Your task to perform on an android device: Open calendar and show me the fourth week of next month Image 0: 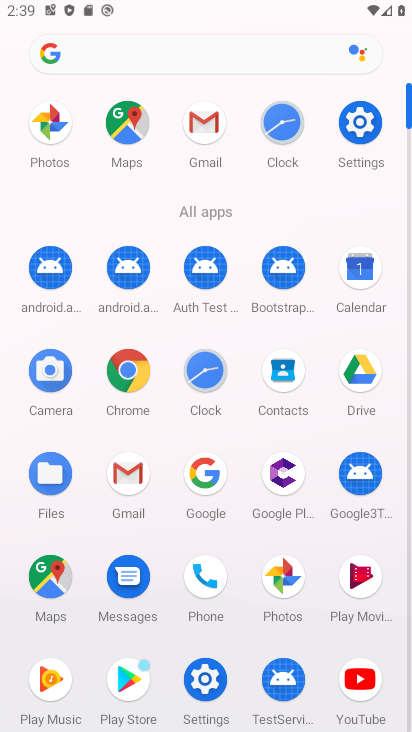
Step 0: click (359, 268)
Your task to perform on an android device: Open calendar and show me the fourth week of next month Image 1: 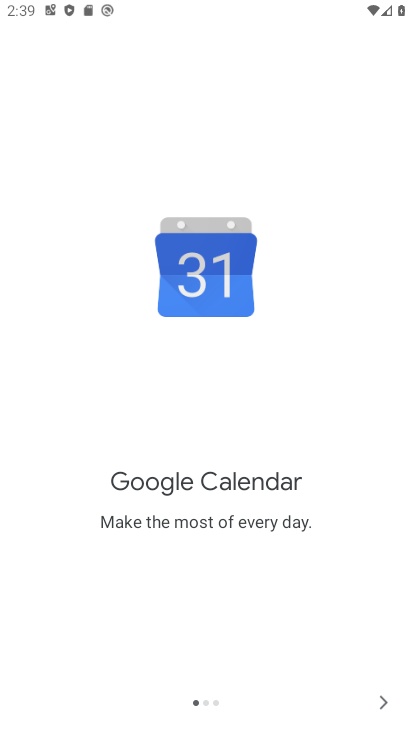
Step 1: click (375, 693)
Your task to perform on an android device: Open calendar and show me the fourth week of next month Image 2: 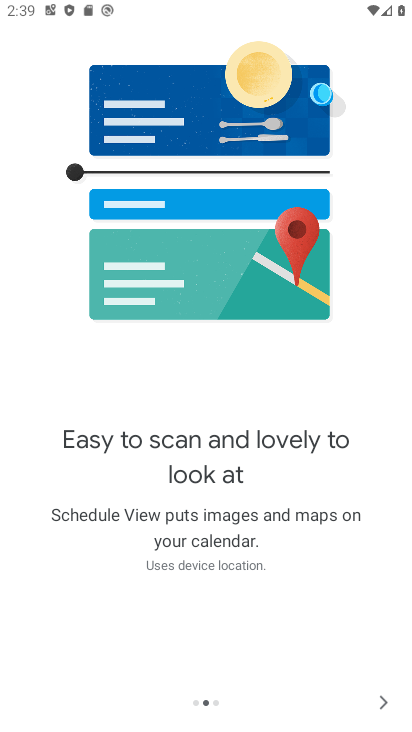
Step 2: click (380, 700)
Your task to perform on an android device: Open calendar and show me the fourth week of next month Image 3: 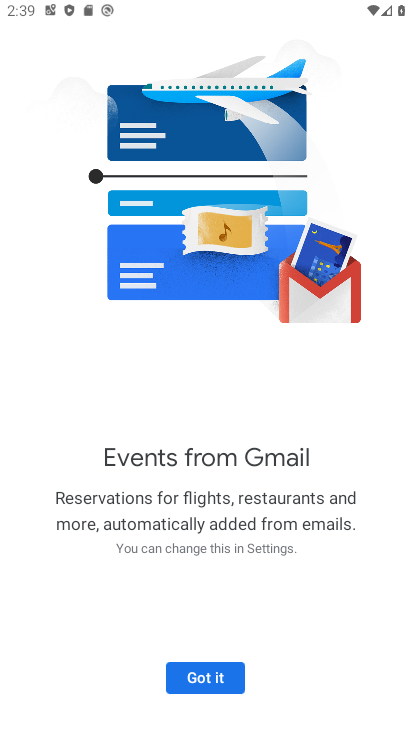
Step 3: click (224, 674)
Your task to perform on an android device: Open calendar and show me the fourth week of next month Image 4: 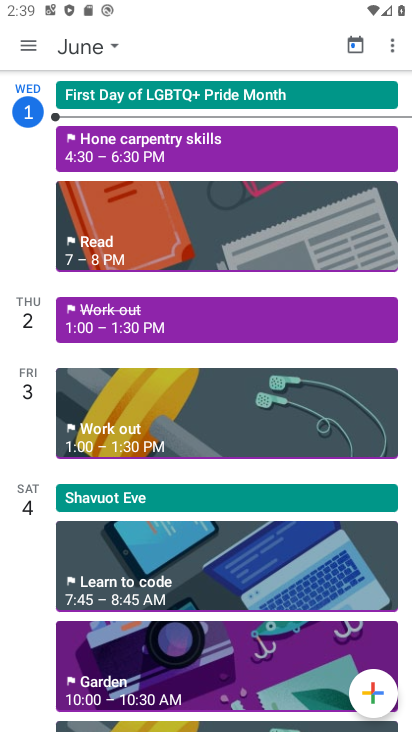
Step 4: click (115, 45)
Your task to perform on an android device: Open calendar and show me the fourth week of next month Image 5: 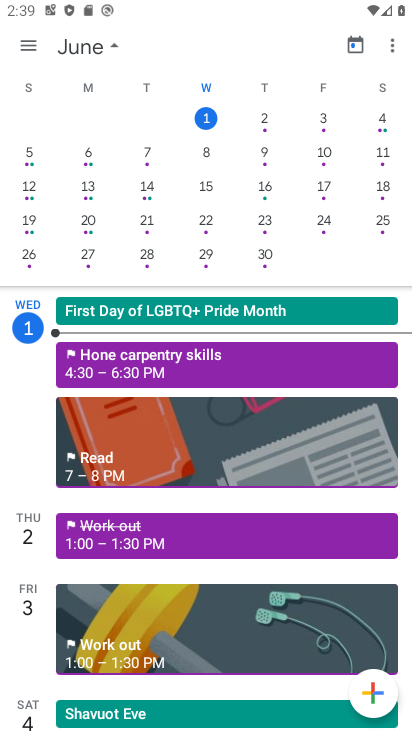
Step 5: drag from (83, 188) to (7, 188)
Your task to perform on an android device: Open calendar and show me the fourth week of next month Image 6: 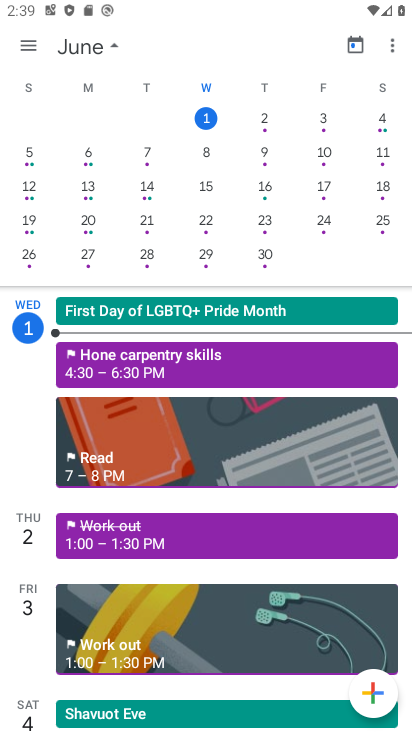
Step 6: click (204, 272)
Your task to perform on an android device: Open calendar and show me the fourth week of next month Image 7: 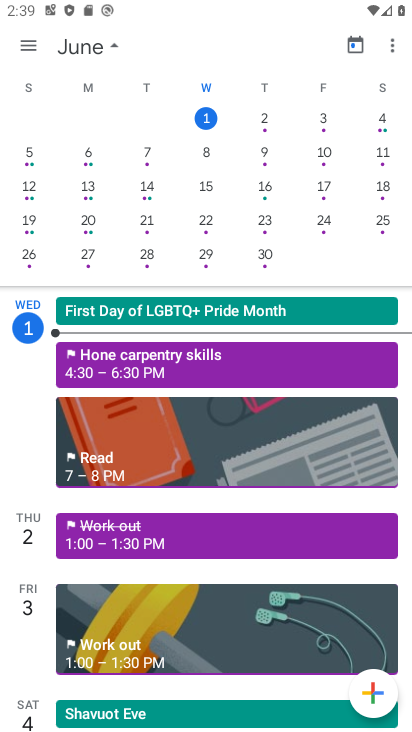
Step 7: drag from (110, 192) to (7, 175)
Your task to perform on an android device: Open calendar and show me the fourth week of next month Image 8: 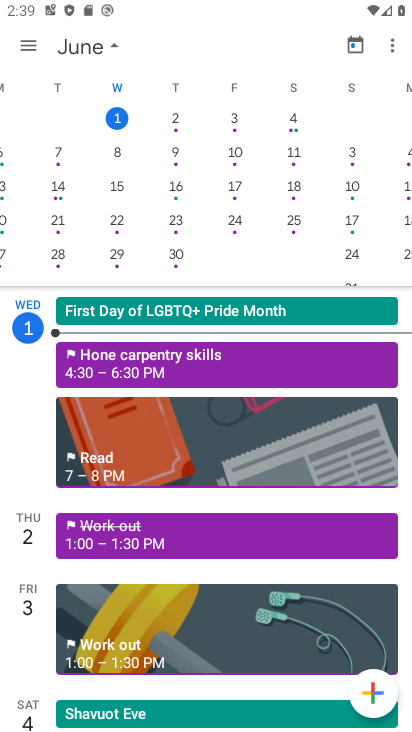
Step 8: drag from (244, 187) to (117, 196)
Your task to perform on an android device: Open calendar and show me the fourth week of next month Image 9: 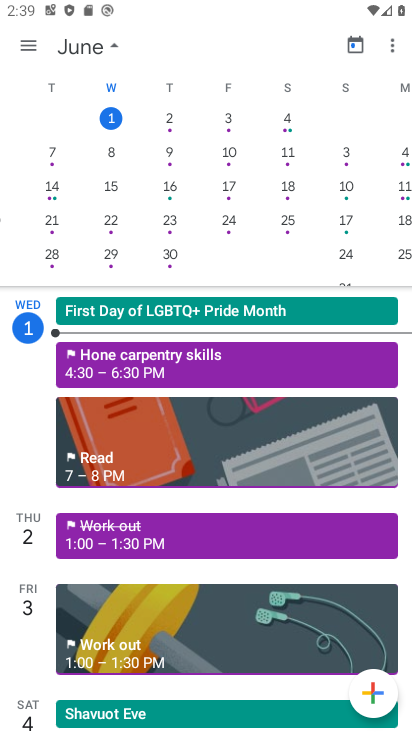
Step 9: drag from (268, 178) to (24, 183)
Your task to perform on an android device: Open calendar and show me the fourth week of next month Image 10: 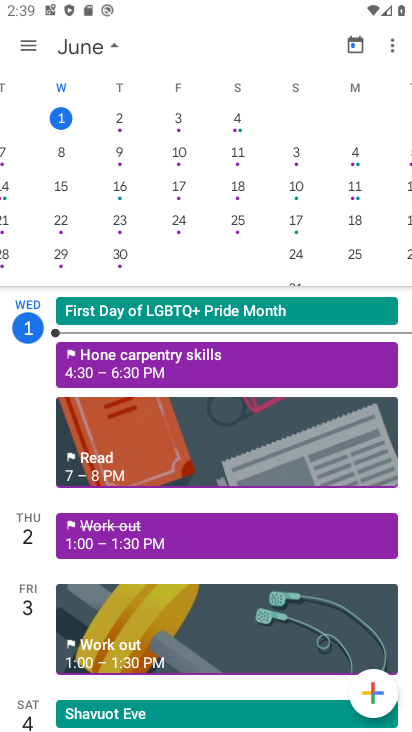
Step 10: drag from (290, 201) to (8, 182)
Your task to perform on an android device: Open calendar and show me the fourth week of next month Image 11: 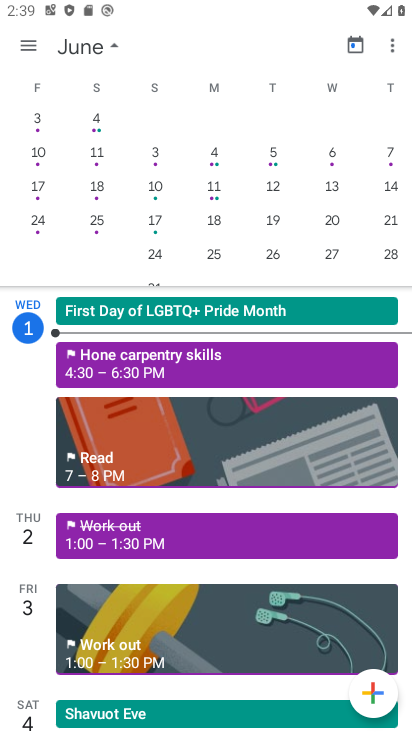
Step 11: drag from (191, 161) to (18, 185)
Your task to perform on an android device: Open calendar and show me the fourth week of next month Image 12: 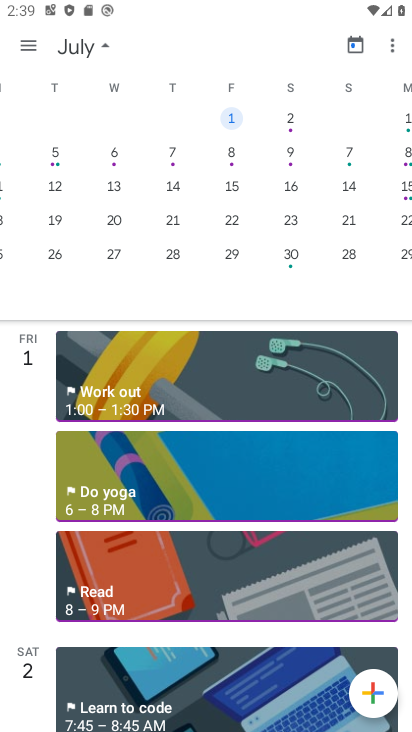
Step 12: drag from (144, 199) to (2, 193)
Your task to perform on an android device: Open calendar and show me the fourth week of next month Image 13: 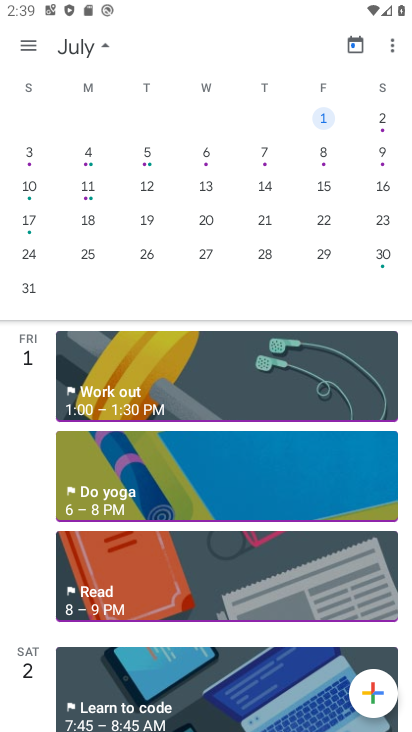
Step 13: drag from (305, 149) to (0, 159)
Your task to perform on an android device: Open calendar and show me the fourth week of next month Image 14: 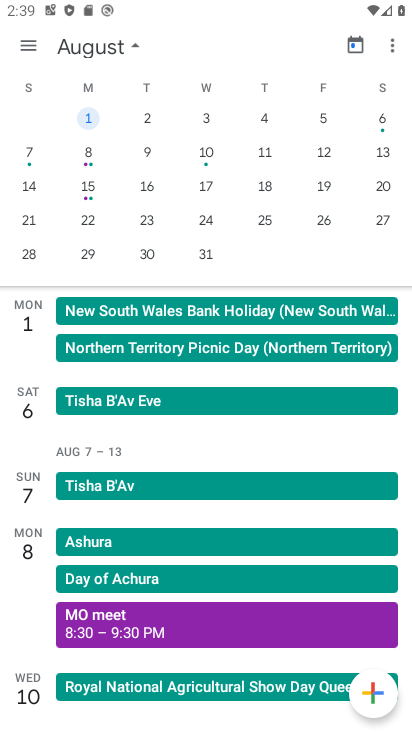
Step 14: click (283, 212)
Your task to perform on an android device: Open calendar and show me the fourth week of next month Image 15: 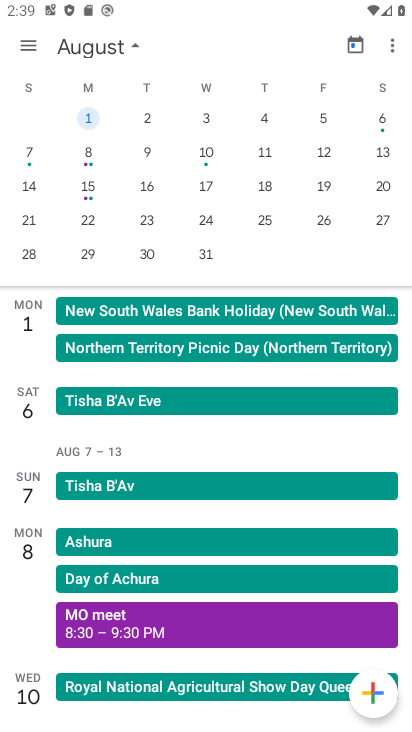
Step 15: drag from (84, 173) to (266, 210)
Your task to perform on an android device: Open calendar and show me the fourth week of next month Image 16: 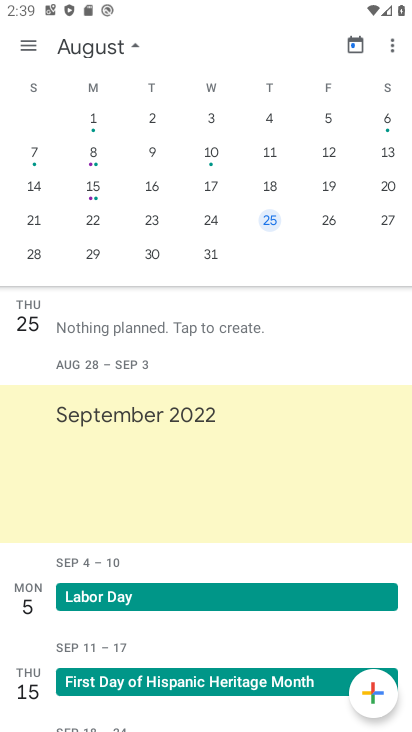
Step 16: drag from (71, 196) to (346, 229)
Your task to perform on an android device: Open calendar and show me the fourth week of next month Image 17: 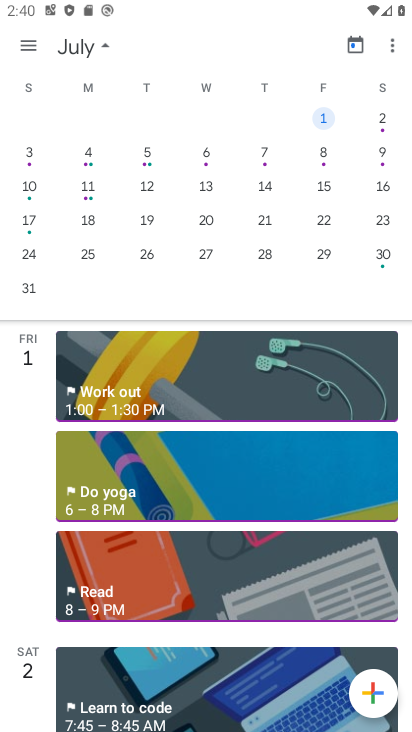
Step 17: click (127, 249)
Your task to perform on an android device: Open calendar and show me the fourth week of next month Image 18: 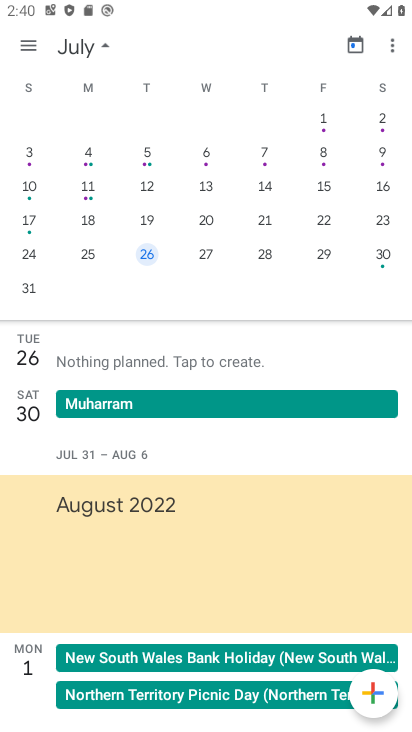
Step 18: click (321, 181)
Your task to perform on an android device: Open calendar and show me the fourth week of next month Image 19: 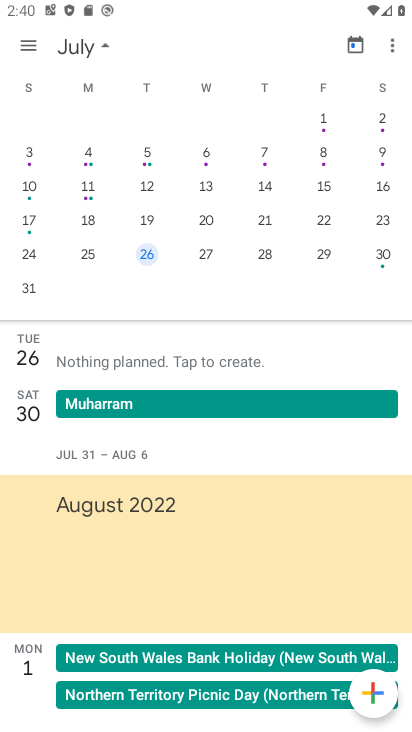
Step 19: click (317, 186)
Your task to perform on an android device: Open calendar and show me the fourth week of next month Image 20: 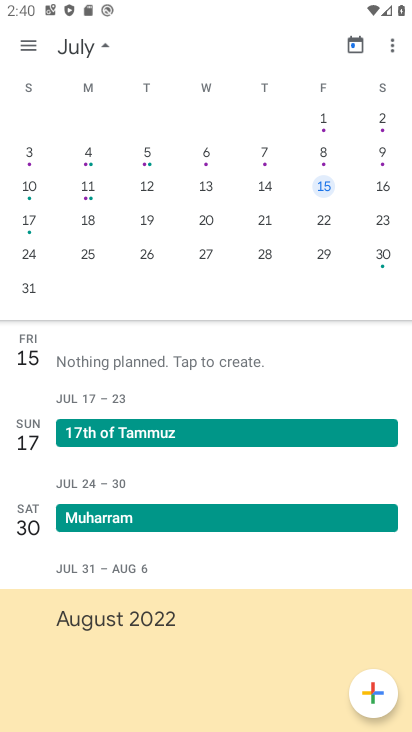
Step 20: task complete